Your task to perform on an android device: Do I have any events tomorrow? Image 0: 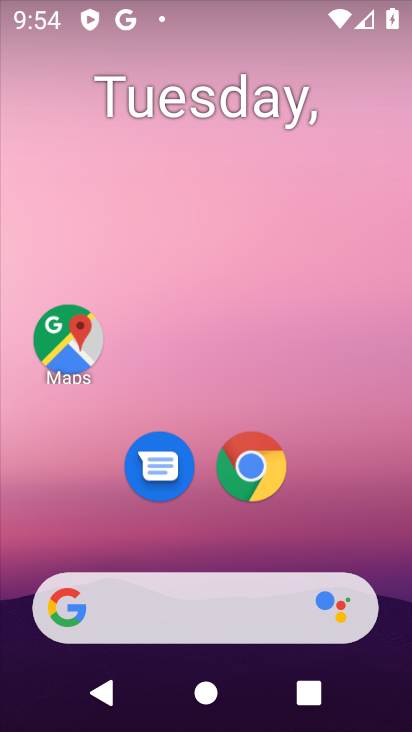
Step 0: drag from (343, 526) to (349, 95)
Your task to perform on an android device: Do I have any events tomorrow? Image 1: 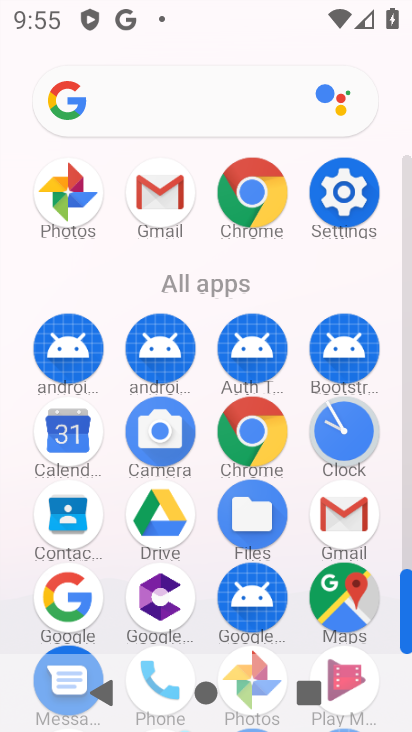
Step 1: click (71, 437)
Your task to perform on an android device: Do I have any events tomorrow? Image 2: 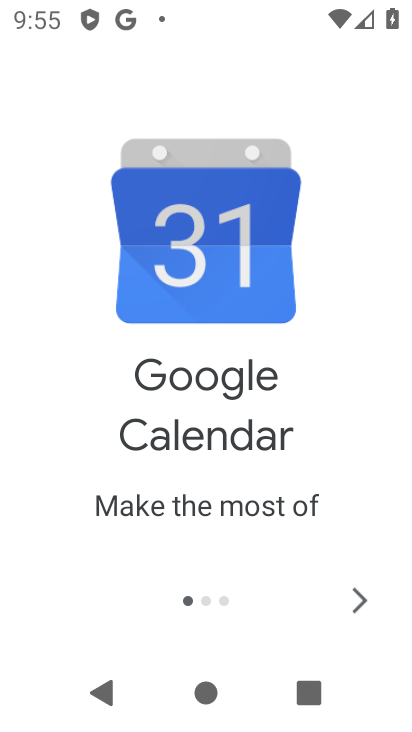
Step 2: click (364, 598)
Your task to perform on an android device: Do I have any events tomorrow? Image 3: 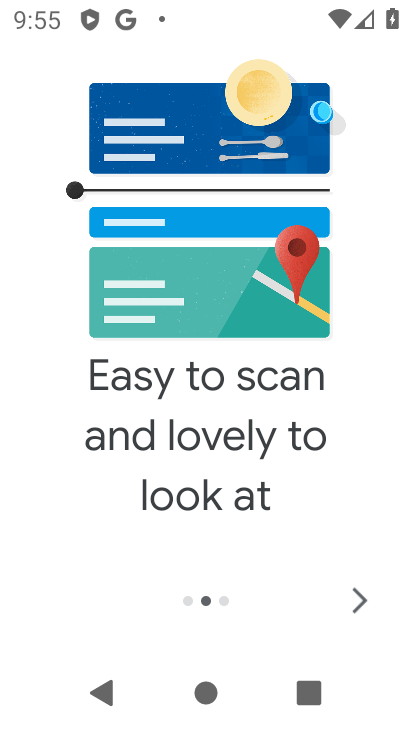
Step 3: click (365, 597)
Your task to perform on an android device: Do I have any events tomorrow? Image 4: 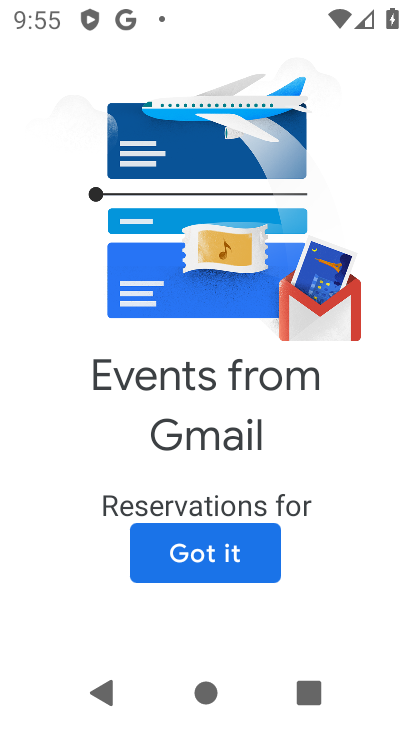
Step 4: click (253, 560)
Your task to perform on an android device: Do I have any events tomorrow? Image 5: 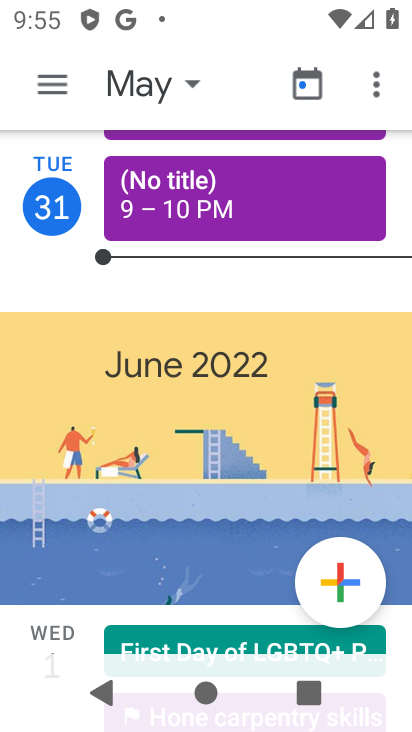
Step 5: click (161, 77)
Your task to perform on an android device: Do I have any events tomorrow? Image 6: 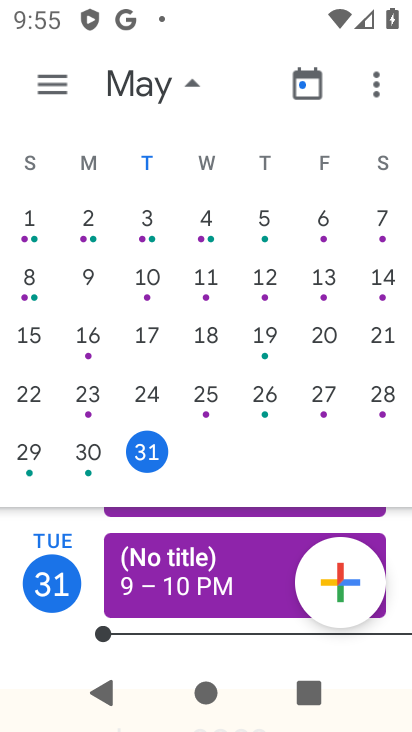
Step 6: drag from (354, 316) to (46, 330)
Your task to perform on an android device: Do I have any events tomorrow? Image 7: 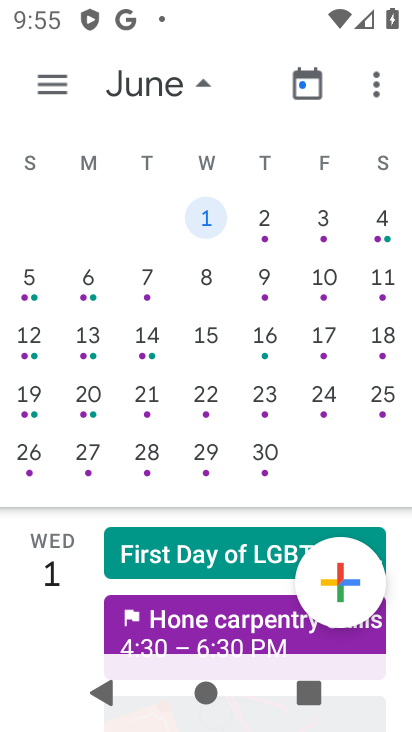
Step 7: click (204, 213)
Your task to perform on an android device: Do I have any events tomorrow? Image 8: 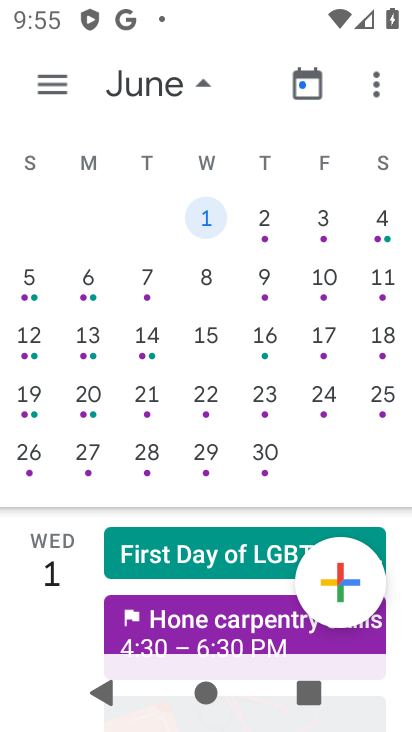
Step 8: click (213, 214)
Your task to perform on an android device: Do I have any events tomorrow? Image 9: 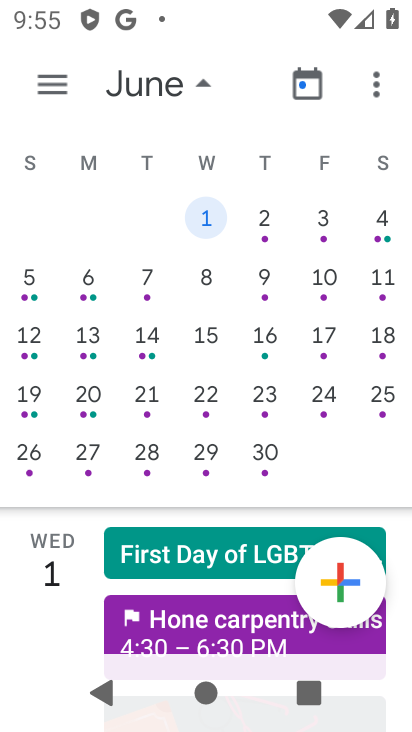
Step 9: task complete